Your task to perform on an android device: What's on my calendar tomorrow? Image 0: 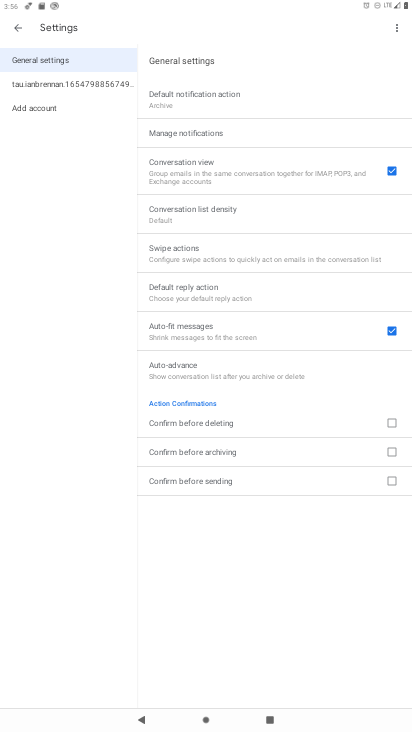
Step 0: press home button
Your task to perform on an android device: What's on my calendar tomorrow? Image 1: 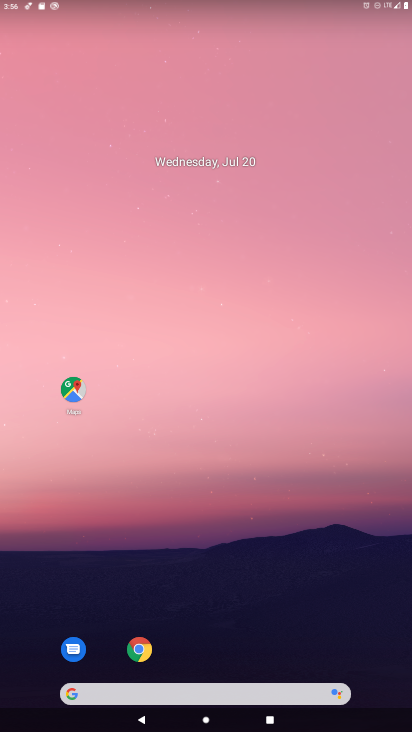
Step 1: drag from (188, 690) to (223, 141)
Your task to perform on an android device: What's on my calendar tomorrow? Image 2: 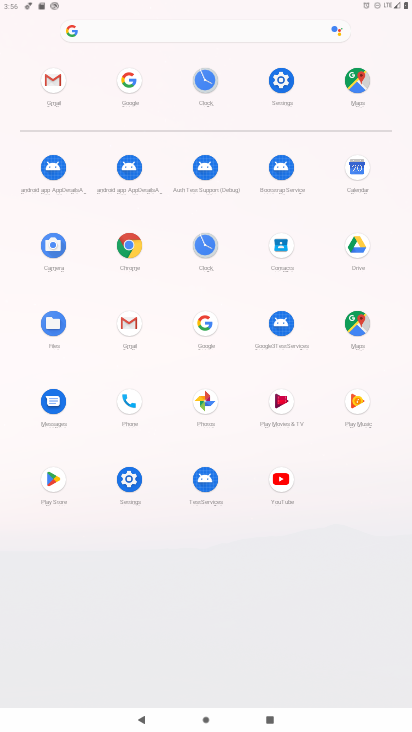
Step 2: click (357, 169)
Your task to perform on an android device: What's on my calendar tomorrow? Image 3: 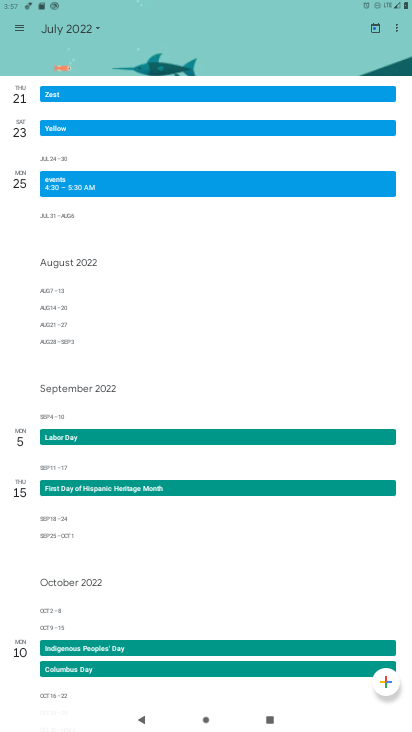
Step 3: click (377, 31)
Your task to perform on an android device: What's on my calendar tomorrow? Image 4: 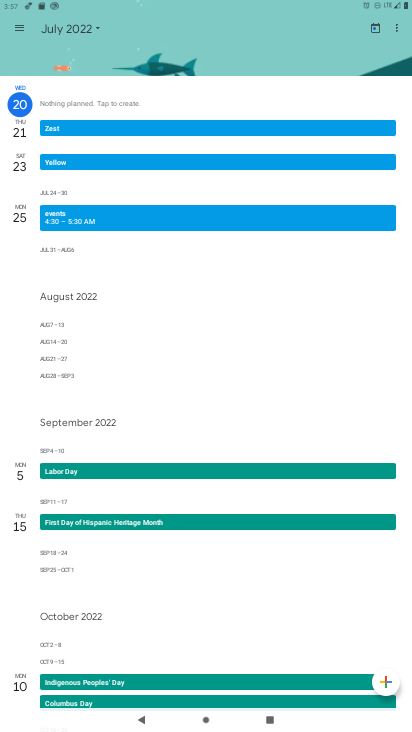
Step 4: click (106, 28)
Your task to perform on an android device: What's on my calendar tomorrow? Image 5: 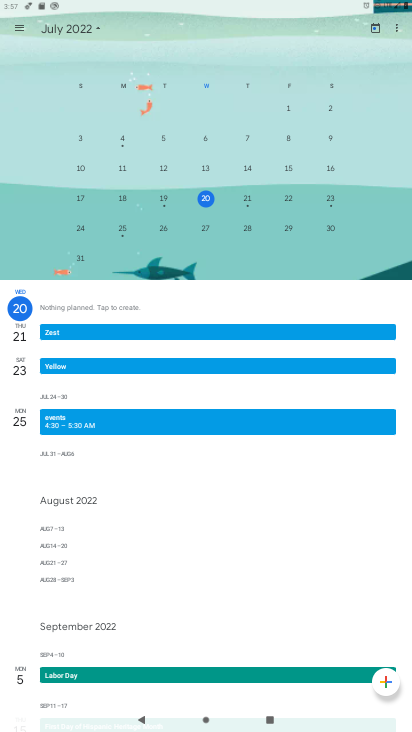
Step 5: click (250, 199)
Your task to perform on an android device: What's on my calendar tomorrow? Image 6: 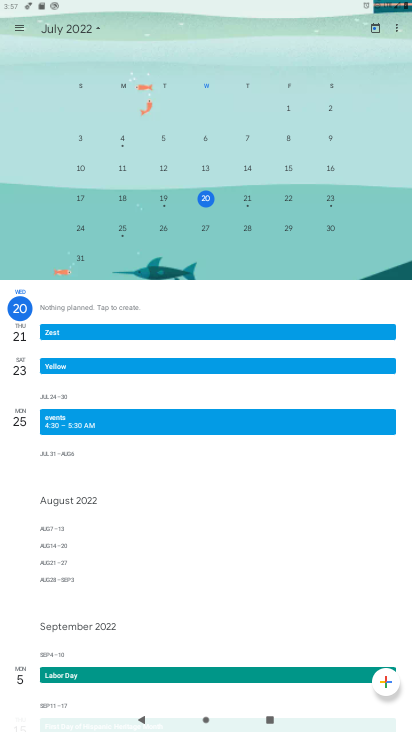
Step 6: click (248, 196)
Your task to perform on an android device: What's on my calendar tomorrow? Image 7: 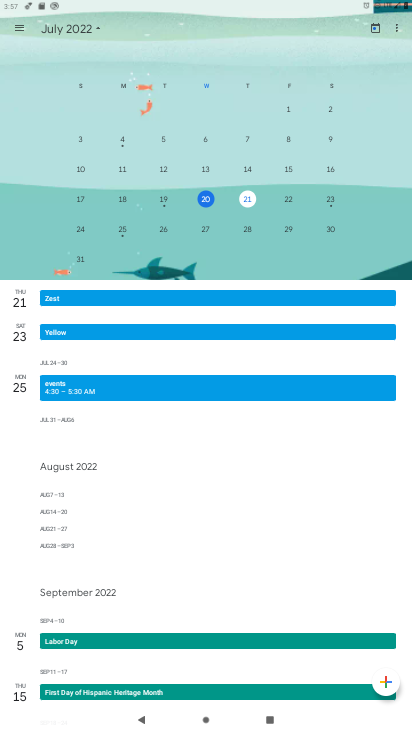
Step 7: task complete